Your task to perform on an android device: Open my contact list Image 0: 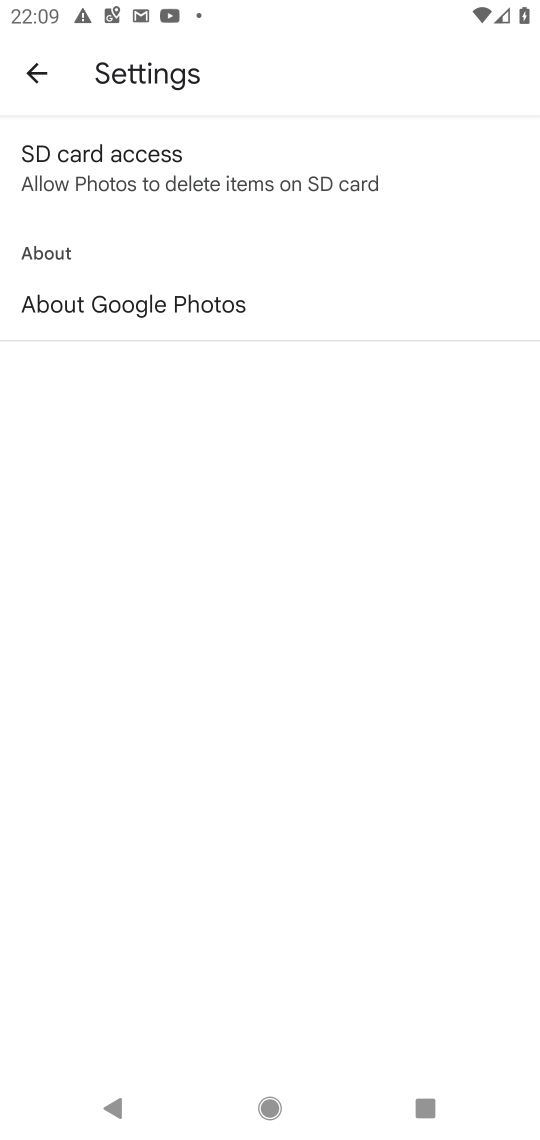
Step 0: press home button
Your task to perform on an android device: Open my contact list Image 1: 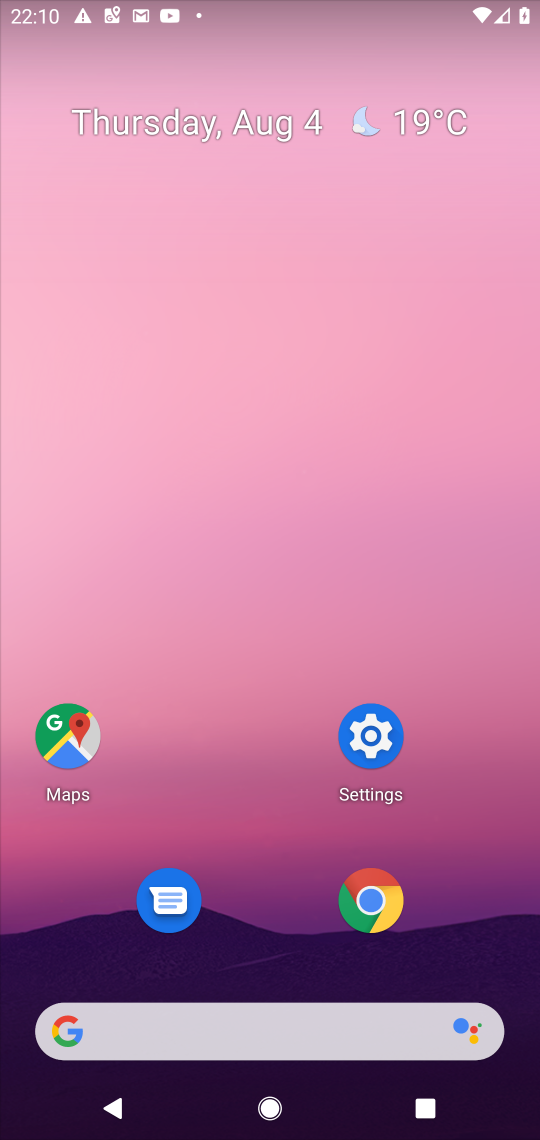
Step 1: drag from (310, 1030) to (487, 126)
Your task to perform on an android device: Open my contact list Image 2: 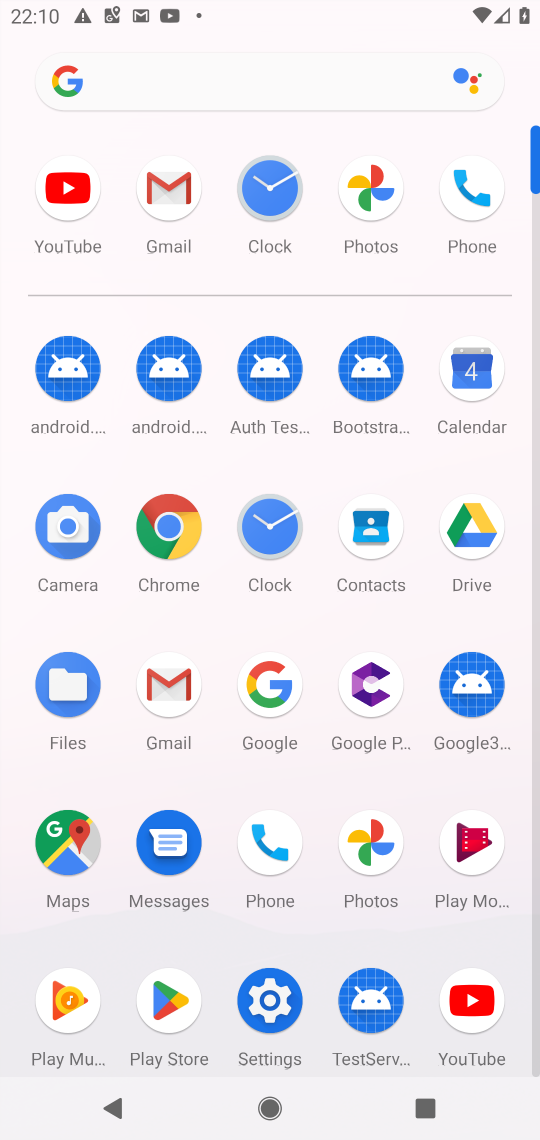
Step 2: click (372, 534)
Your task to perform on an android device: Open my contact list Image 3: 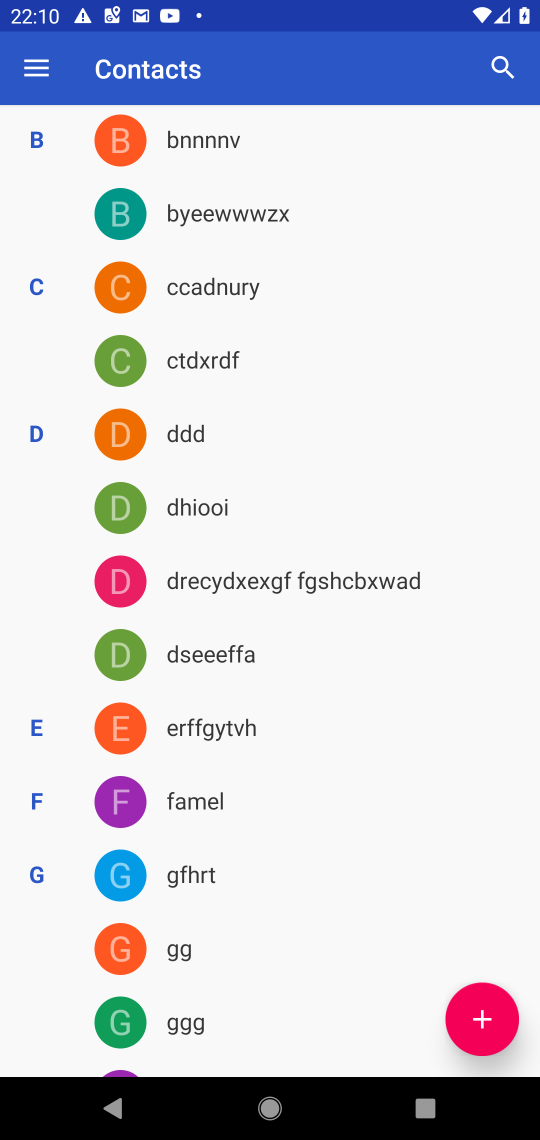
Step 3: task complete